Your task to perform on an android device: Find coffee shops on Maps Image 0: 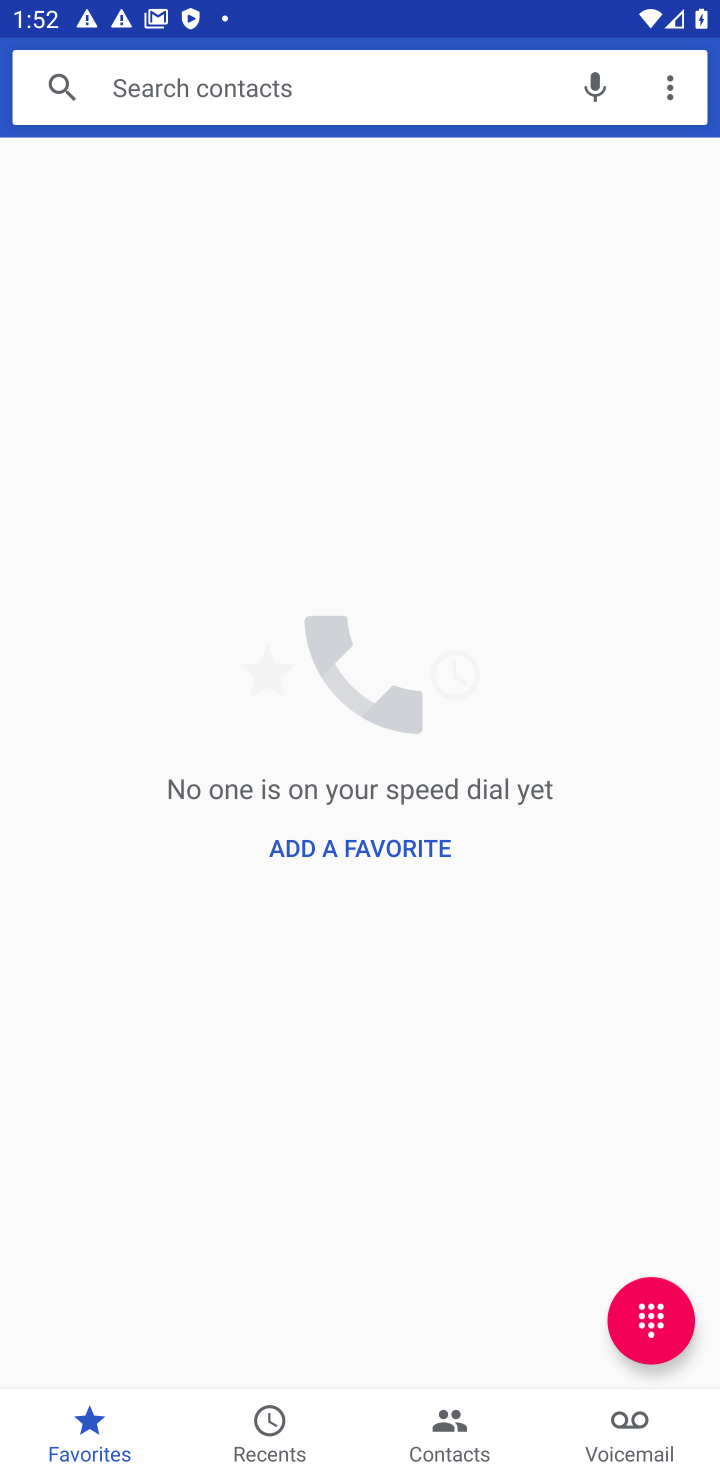
Step 0: press home button
Your task to perform on an android device: Find coffee shops on Maps Image 1: 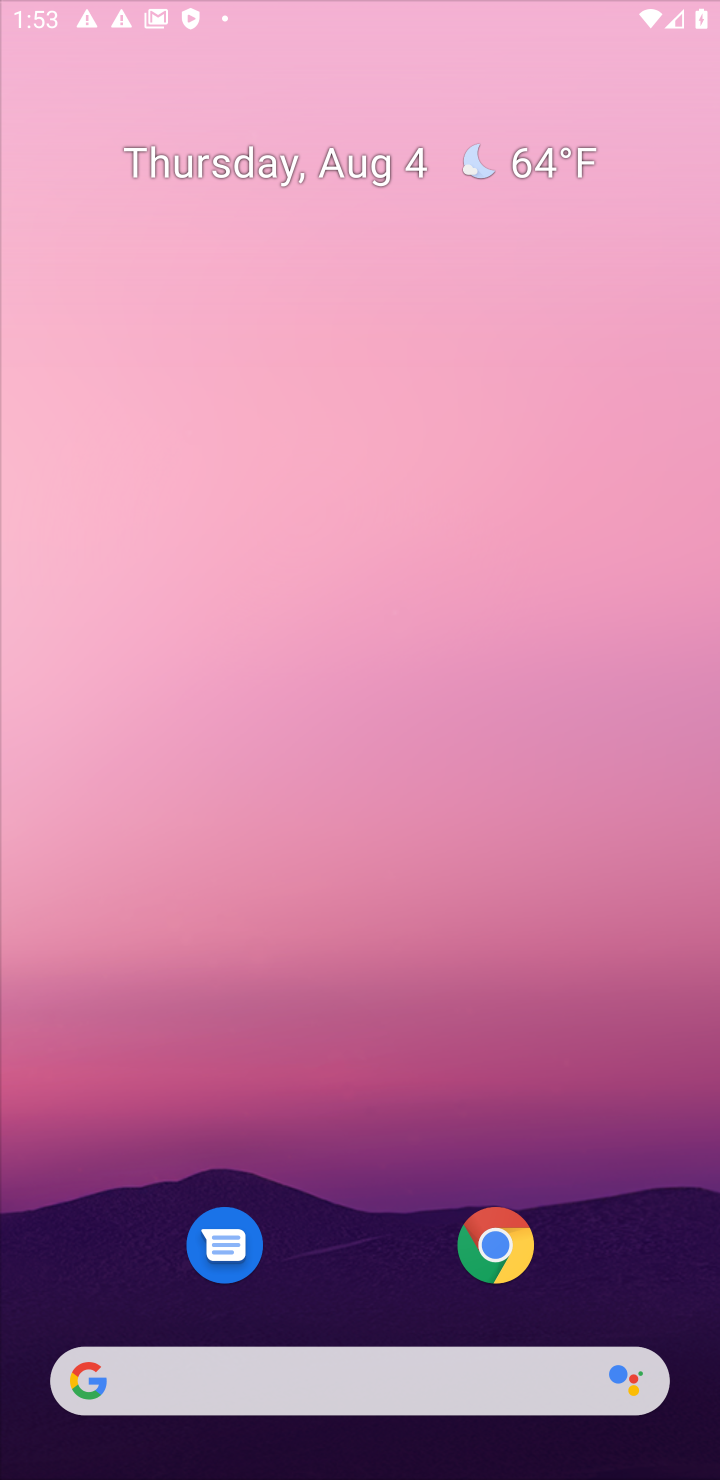
Step 1: drag from (393, 808) to (400, 496)
Your task to perform on an android device: Find coffee shops on Maps Image 2: 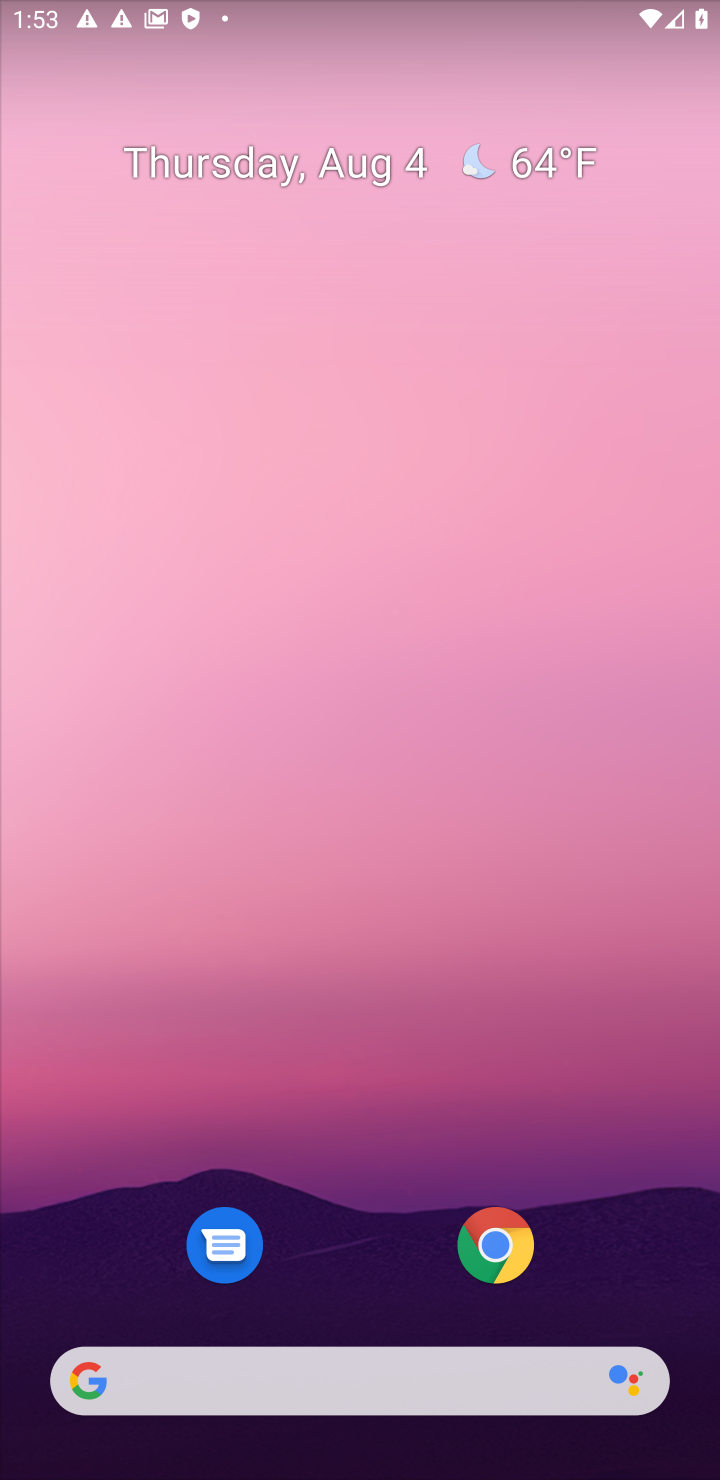
Step 2: drag from (378, 1256) to (393, 326)
Your task to perform on an android device: Find coffee shops on Maps Image 3: 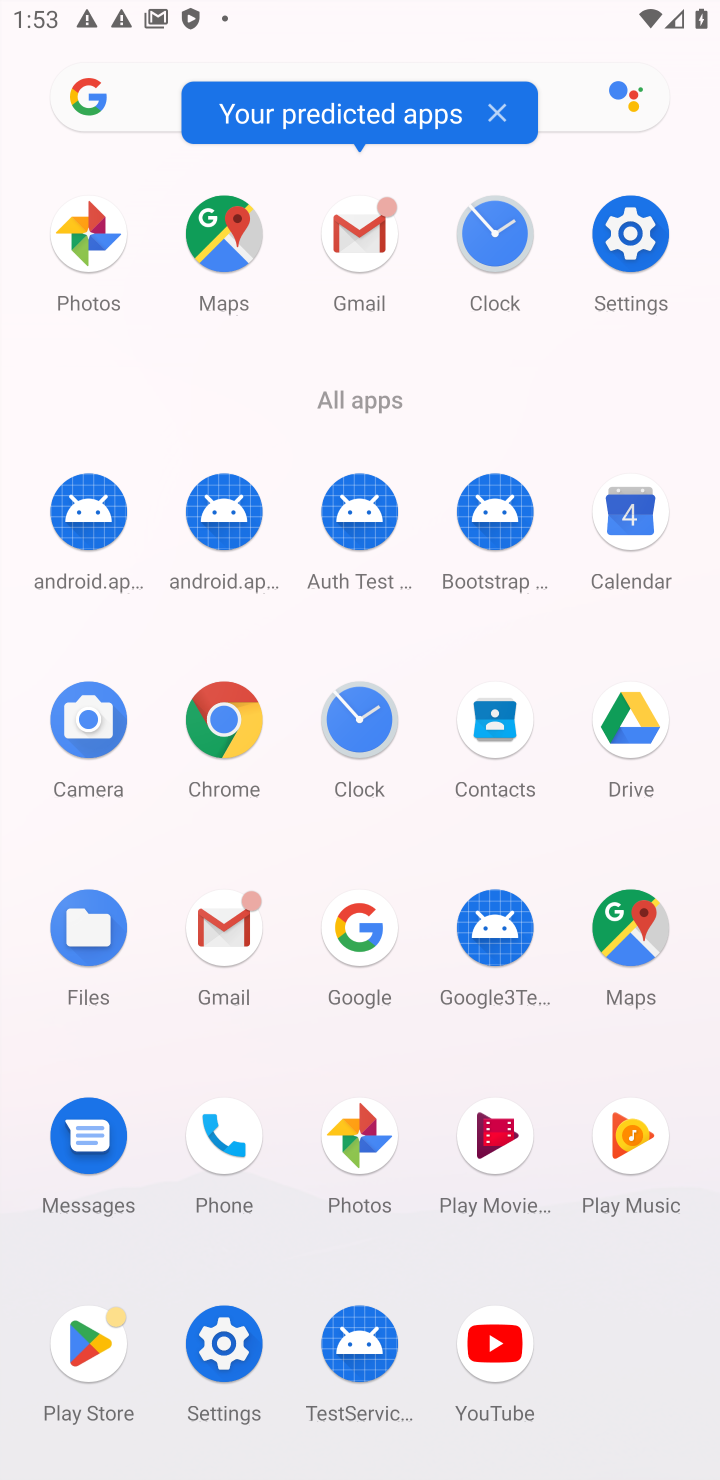
Step 3: click (613, 922)
Your task to perform on an android device: Find coffee shops on Maps Image 4: 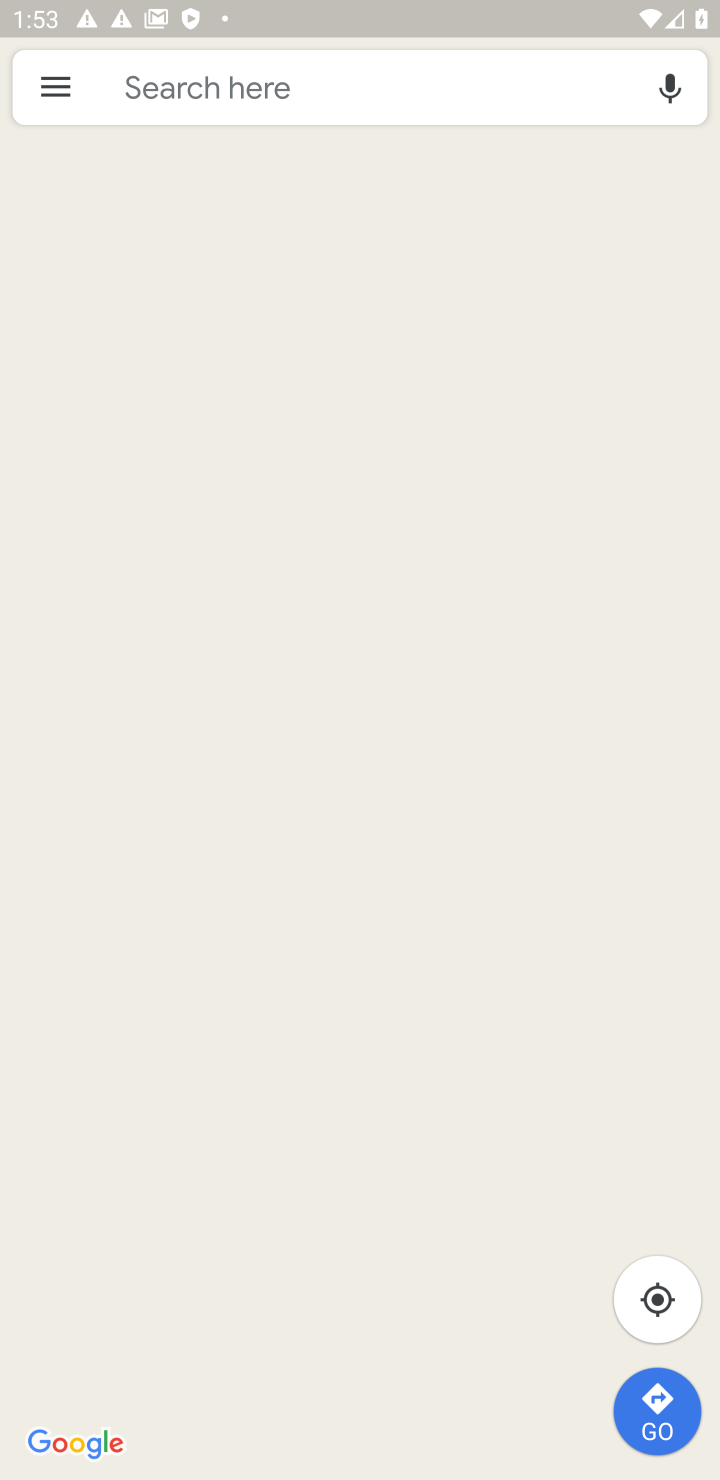
Step 4: click (279, 69)
Your task to perform on an android device: Find coffee shops on Maps Image 5: 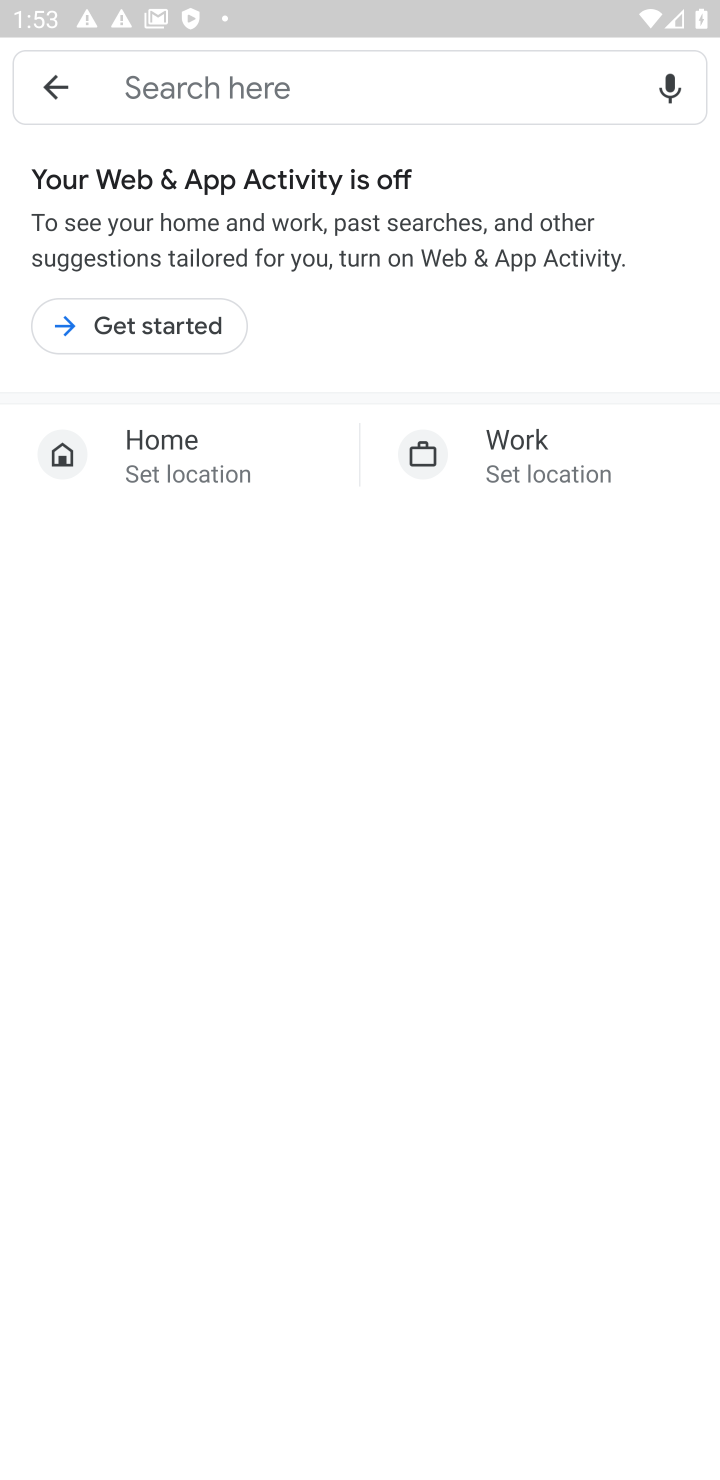
Step 5: click (302, 88)
Your task to perform on an android device: Find coffee shops on Maps Image 6: 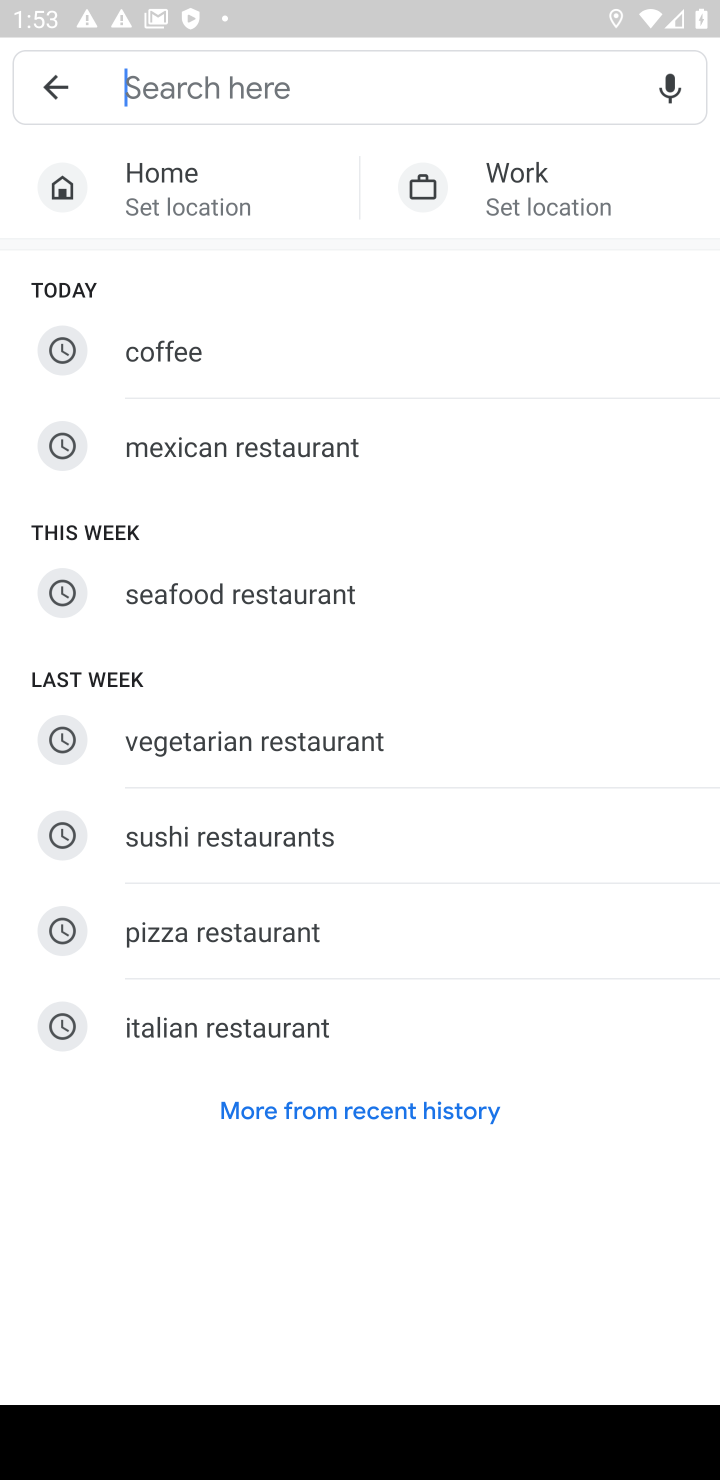
Step 6: click (150, 350)
Your task to perform on an android device: Find coffee shops on Maps Image 7: 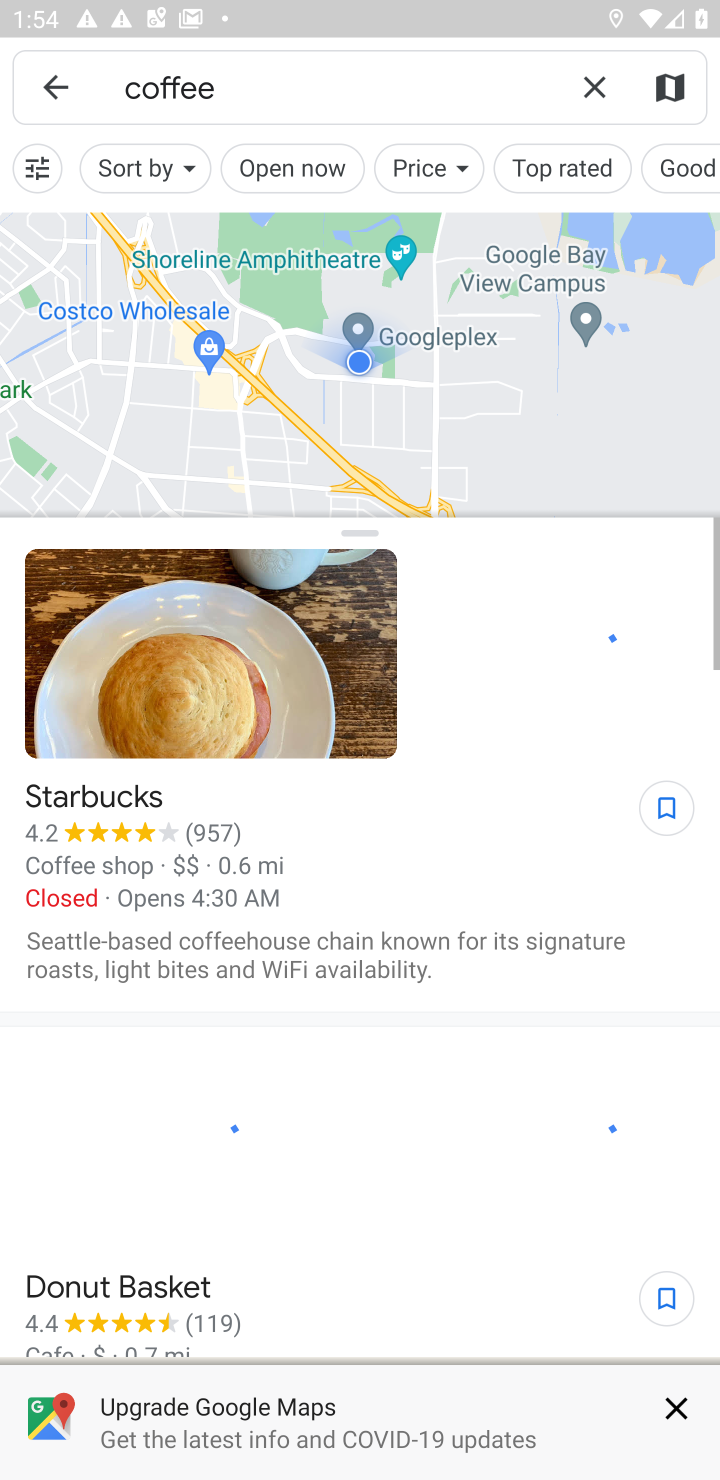
Step 7: task complete